Your task to perform on an android device: turn off airplane mode Image 0: 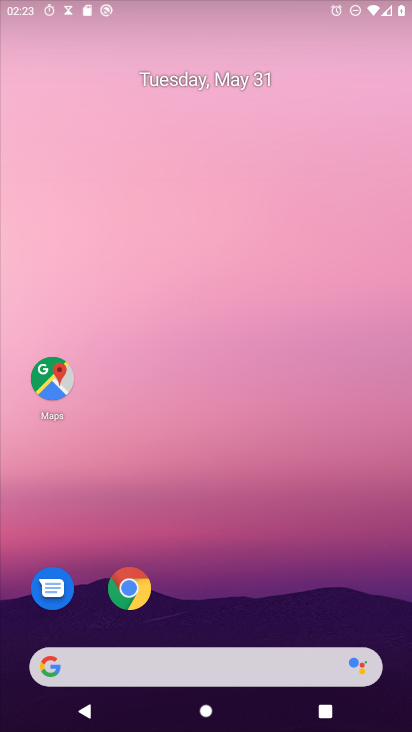
Step 0: drag from (390, 680) to (275, 45)
Your task to perform on an android device: turn off airplane mode Image 1: 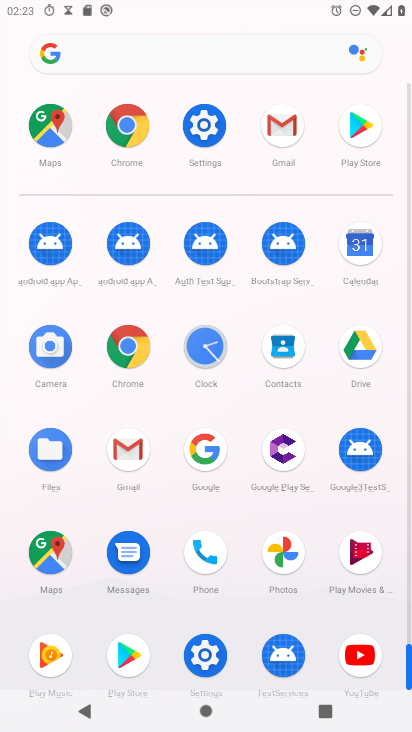
Step 1: click (189, 141)
Your task to perform on an android device: turn off airplane mode Image 2: 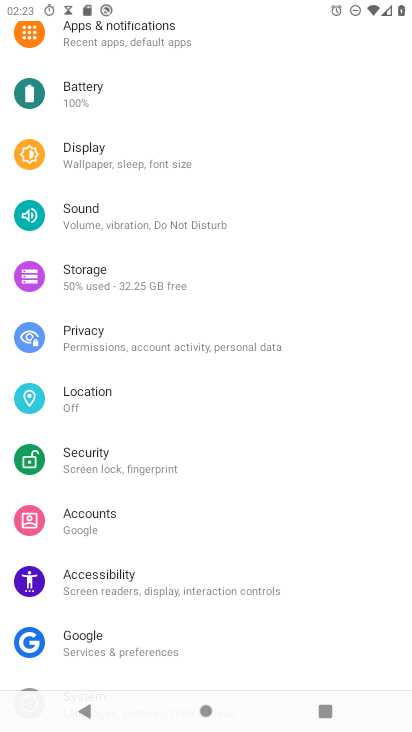
Step 2: drag from (211, 122) to (242, 697)
Your task to perform on an android device: turn off airplane mode Image 3: 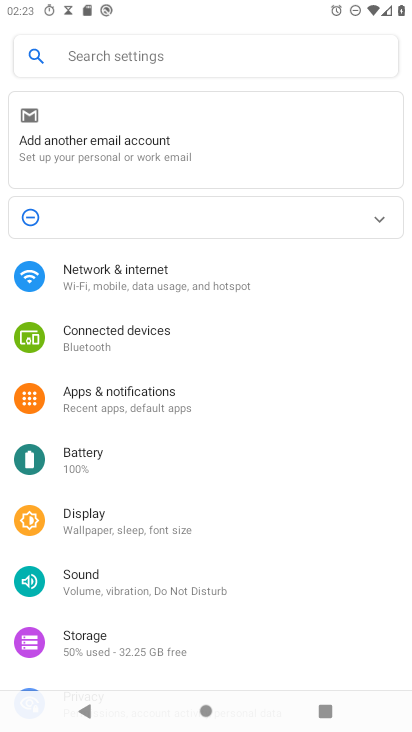
Step 3: click (211, 274)
Your task to perform on an android device: turn off airplane mode Image 4: 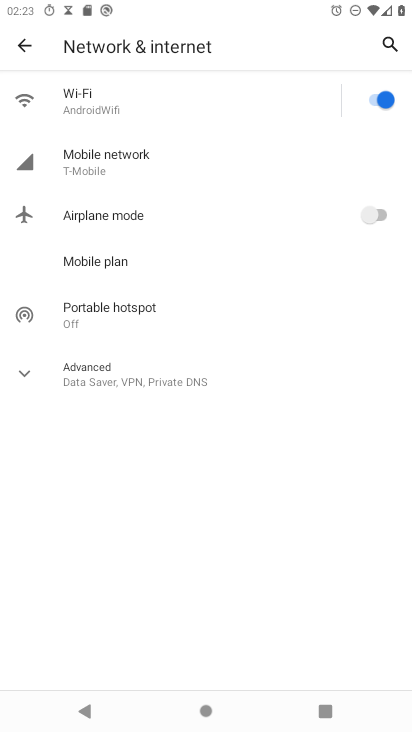
Step 4: task complete